Your task to perform on an android device: Open the map Image 0: 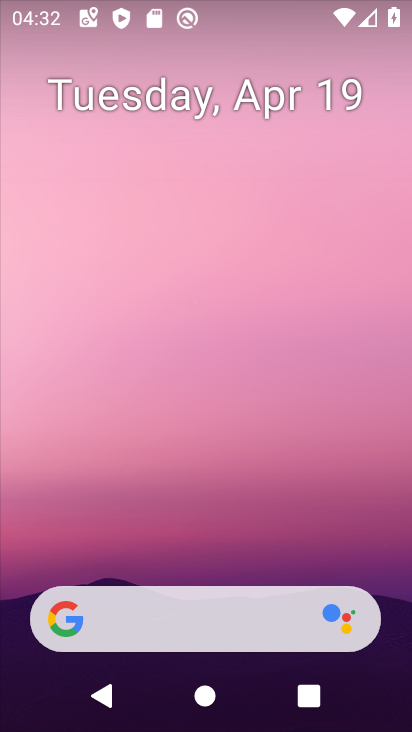
Step 0: drag from (145, 525) to (210, 169)
Your task to perform on an android device: Open the map Image 1: 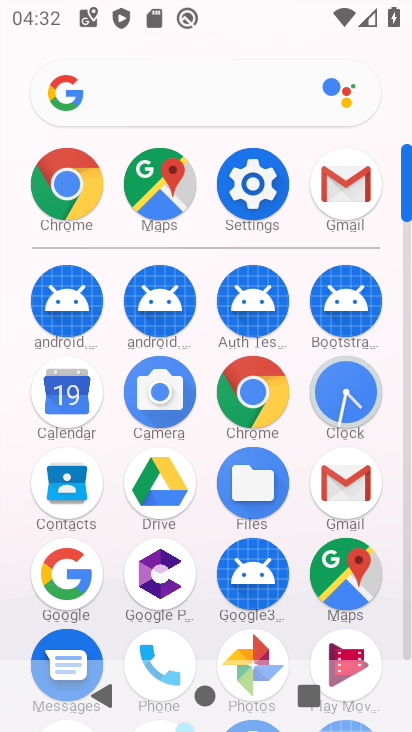
Step 1: drag from (307, 440) to (298, 256)
Your task to perform on an android device: Open the map Image 2: 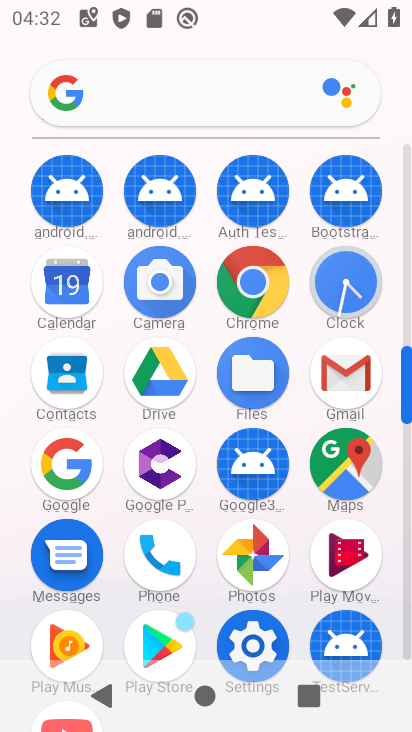
Step 2: drag from (297, 405) to (290, 271)
Your task to perform on an android device: Open the map Image 3: 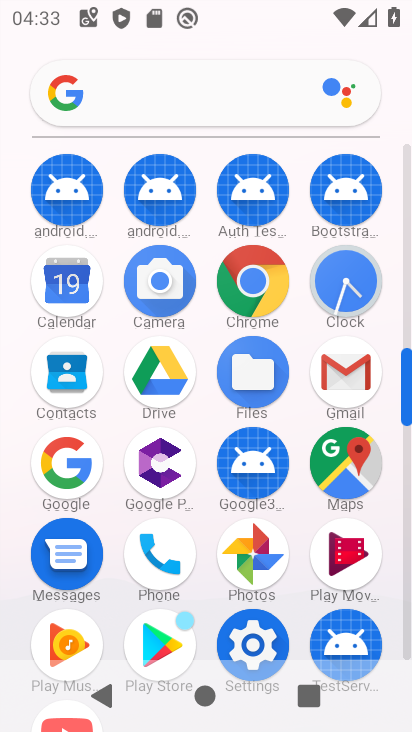
Step 3: click (363, 465)
Your task to perform on an android device: Open the map Image 4: 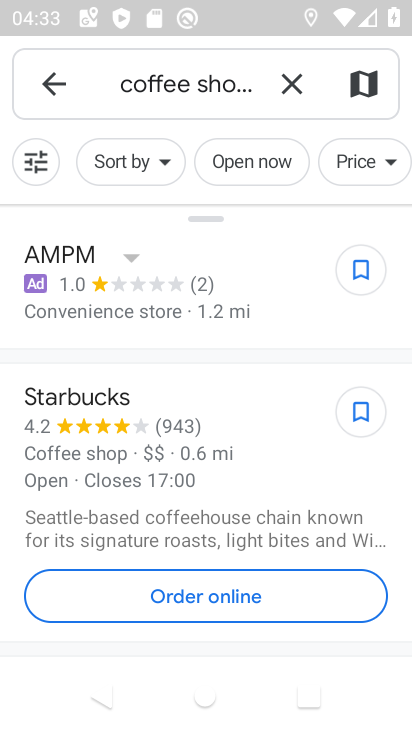
Step 4: task complete